Your task to perform on an android device: Show me productivity apps on the Play Store Image 0: 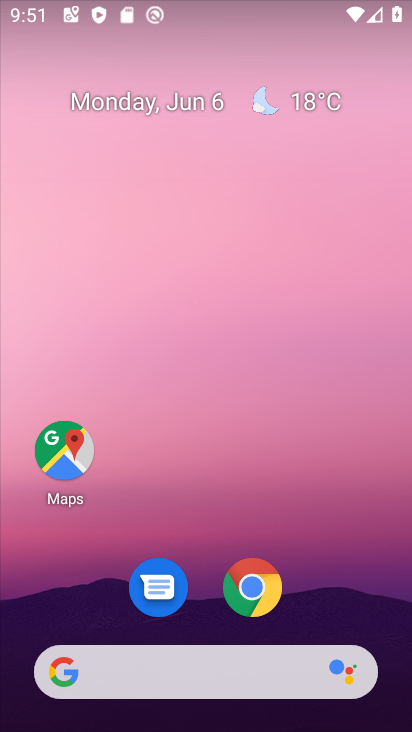
Step 0: drag from (328, 564) to (321, 53)
Your task to perform on an android device: Show me productivity apps on the Play Store Image 1: 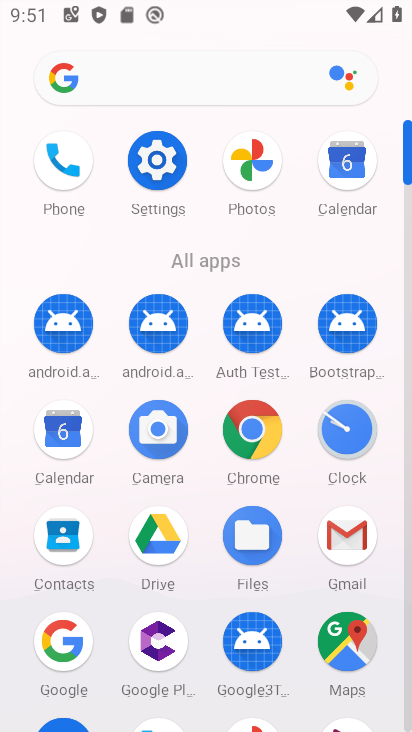
Step 1: click (406, 317)
Your task to perform on an android device: Show me productivity apps on the Play Store Image 2: 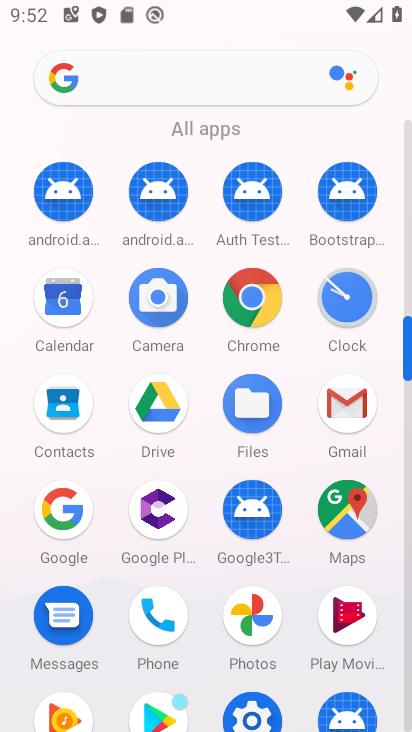
Step 2: click (408, 466)
Your task to perform on an android device: Show me productivity apps on the Play Store Image 3: 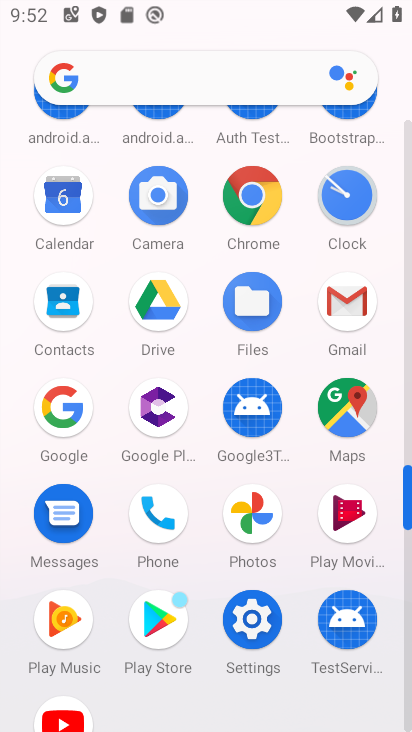
Step 3: click (163, 620)
Your task to perform on an android device: Show me productivity apps on the Play Store Image 4: 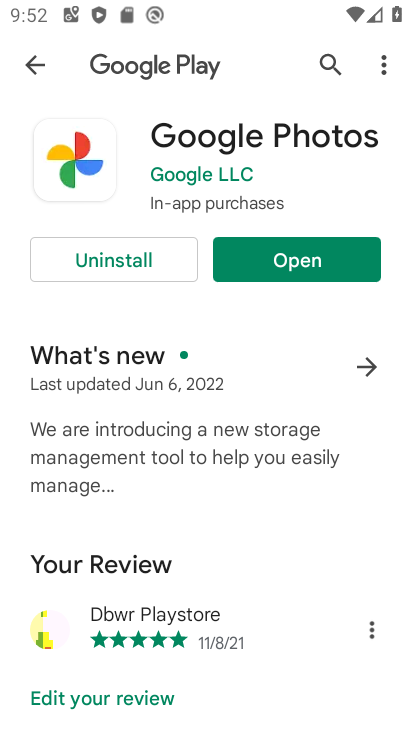
Step 4: click (45, 60)
Your task to perform on an android device: Show me productivity apps on the Play Store Image 5: 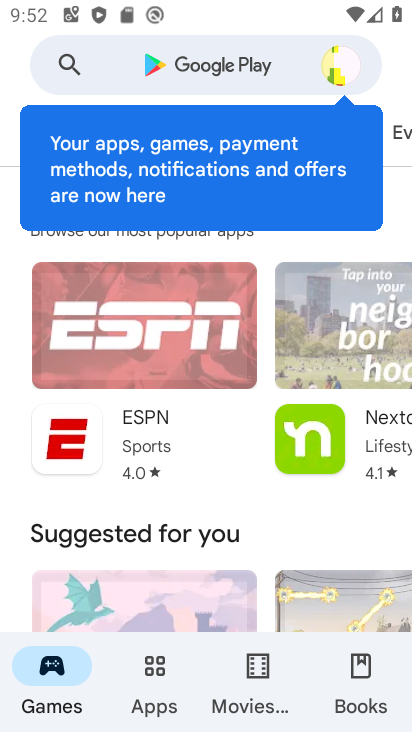
Step 5: click (202, 59)
Your task to perform on an android device: Show me productivity apps on the Play Store Image 6: 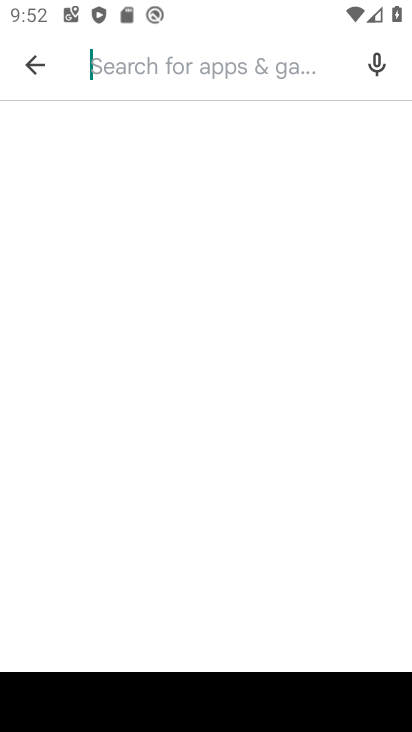
Step 6: type "productivity apps"
Your task to perform on an android device: Show me productivity apps on the Play Store Image 7: 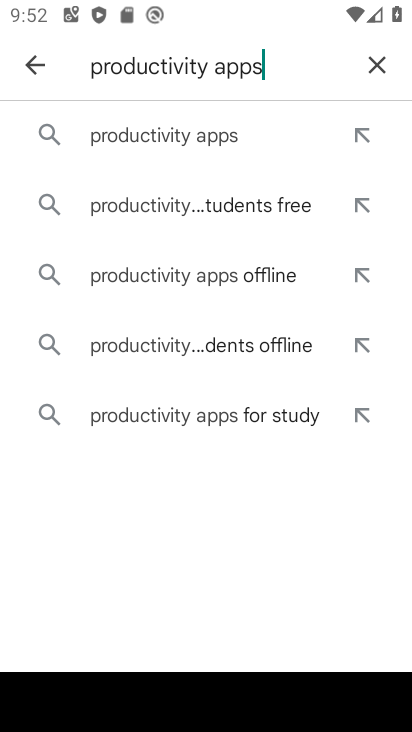
Step 7: click (191, 159)
Your task to perform on an android device: Show me productivity apps on the Play Store Image 8: 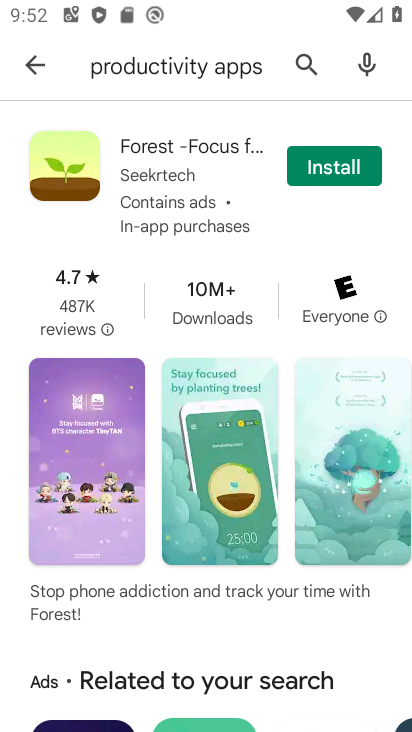
Step 8: task complete